Your task to perform on an android device: Clear all items from cart on newegg.com. Add "amazon basics triple a" to the cart on newegg.com, then select checkout. Image 0: 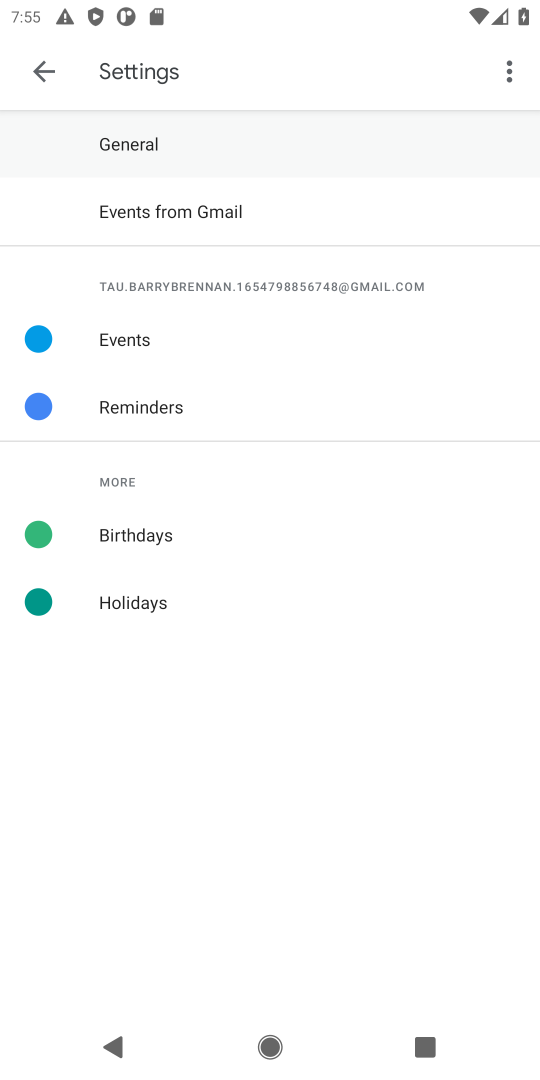
Step 0: press home button
Your task to perform on an android device: Clear all items from cart on newegg.com. Add "amazon basics triple a" to the cart on newegg.com, then select checkout. Image 1: 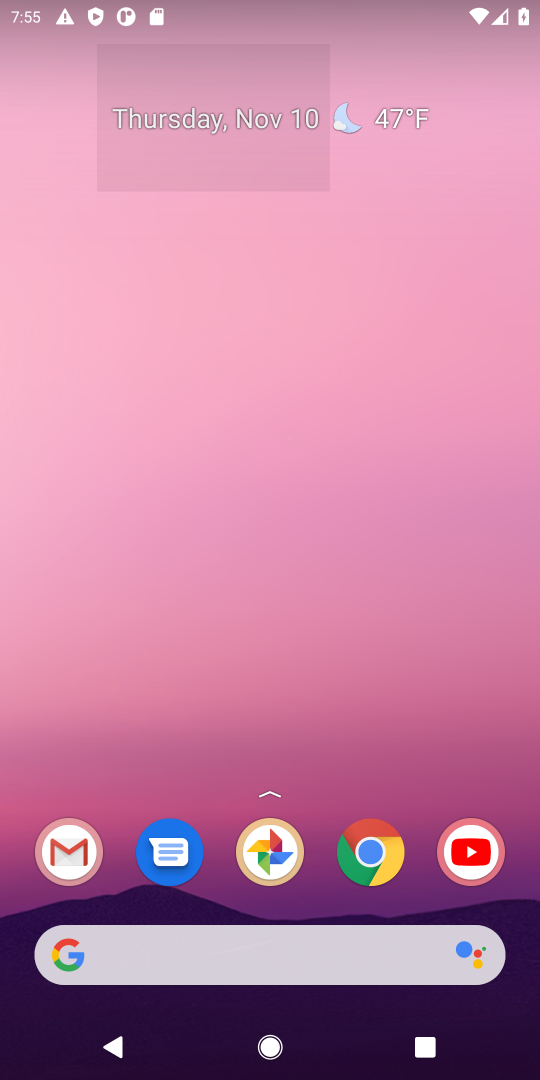
Step 1: click (375, 851)
Your task to perform on an android device: Clear all items from cart on newegg.com. Add "amazon basics triple a" to the cart on newegg.com, then select checkout. Image 2: 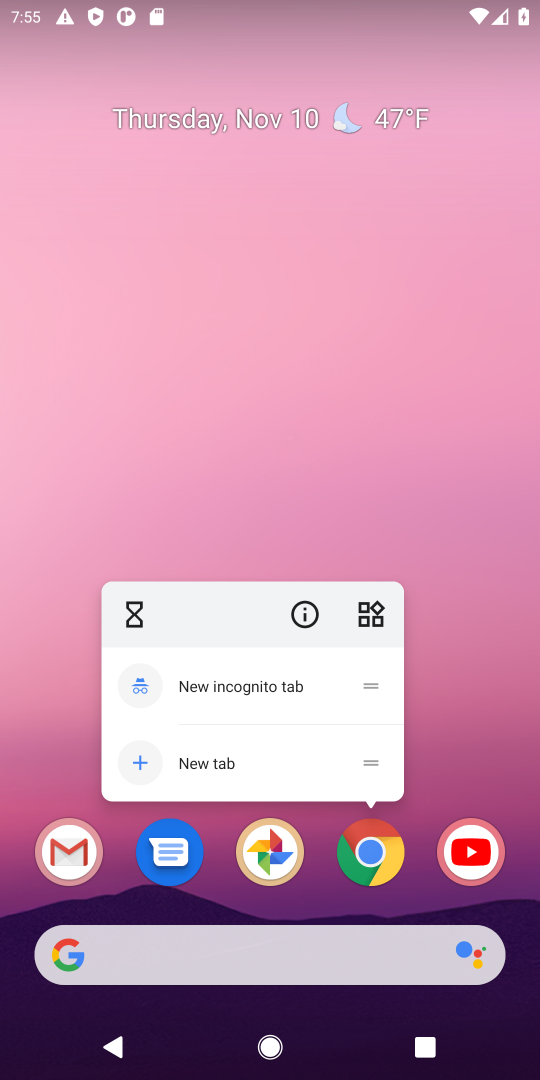
Step 2: click (375, 853)
Your task to perform on an android device: Clear all items from cart on newegg.com. Add "amazon basics triple a" to the cart on newegg.com, then select checkout. Image 3: 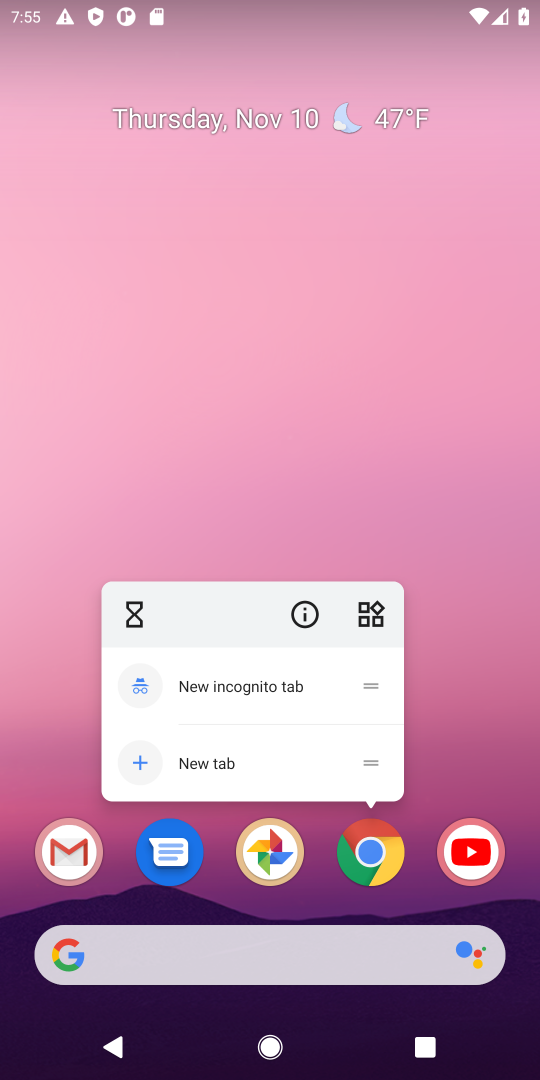
Step 3: click (364, 854)
Your task to perform on an android device: Clear all items from cart on newegg.com. Add "amazon basics triple a" to the cart on newegg.com, then select checkout. Image 4: 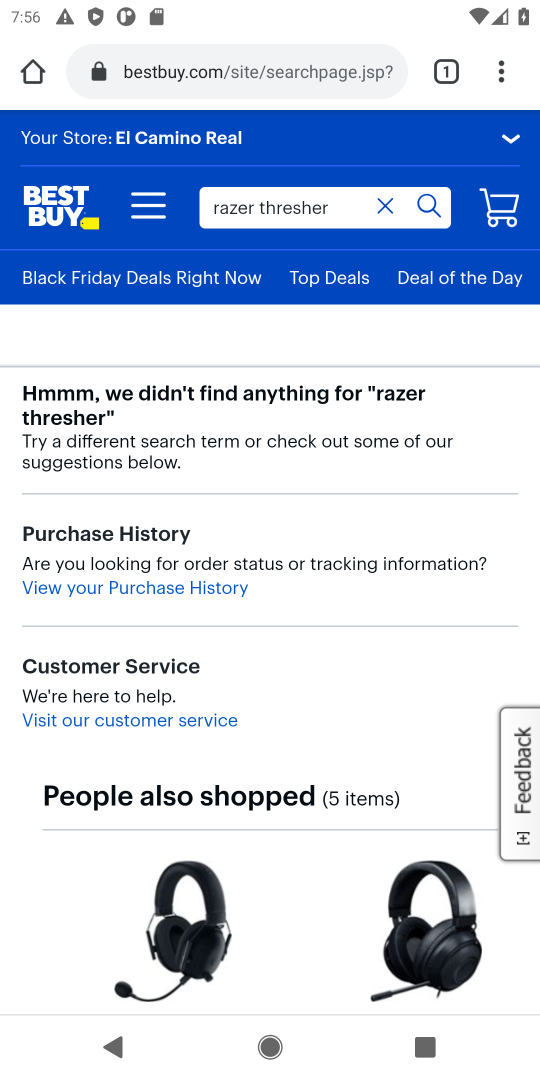
Step 4: click (325, 72)
Your task to perform on an android device: Clear all items from cart on newegg.com. Add "amazon basics triple a" to the cart on newegg.com, then select checkout. Image 5: 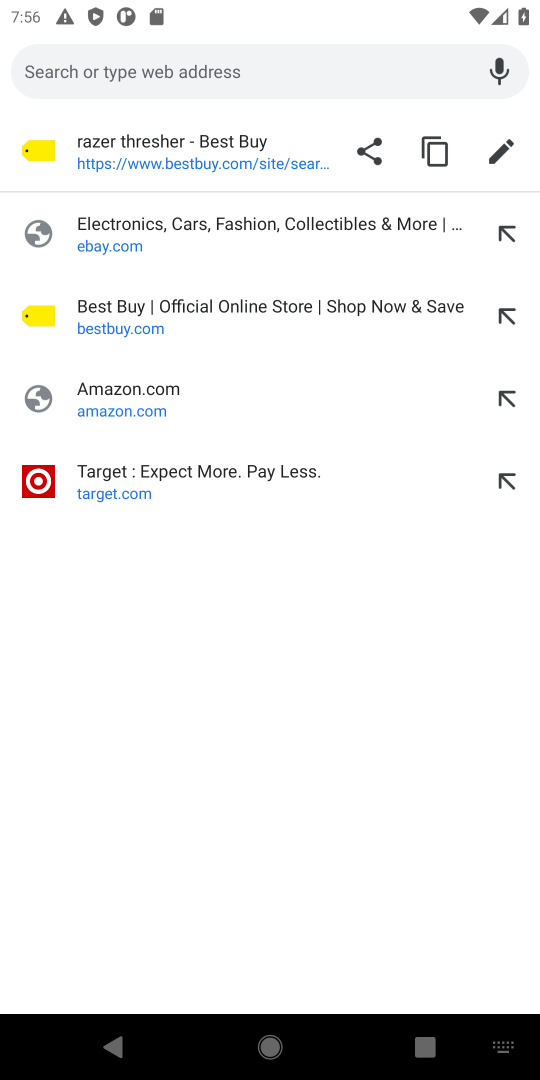
Step 5: type " newegg.com"
Your task to perform on an android device: Clear all items from cart on newegg.com. Add "amazon basics triple a" to the cart on newegg.com, then select checkout. Image 6: 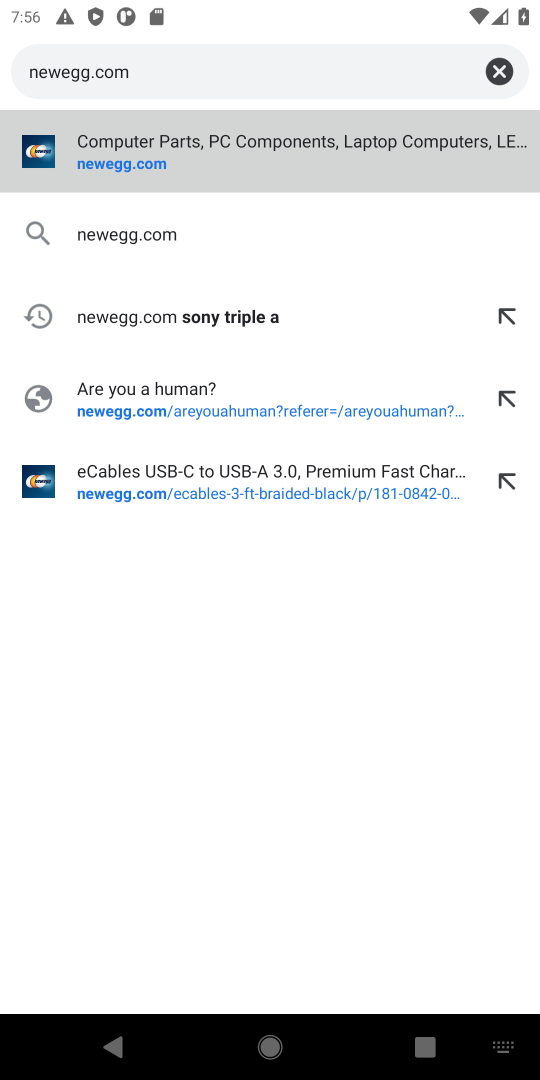
Step 6: press enter
Your task to perform on an android device: Clear all items from cart on newegg.com. Add "amazon basics triple a" to the cart on newegg.com, then select checkout. Image 7: 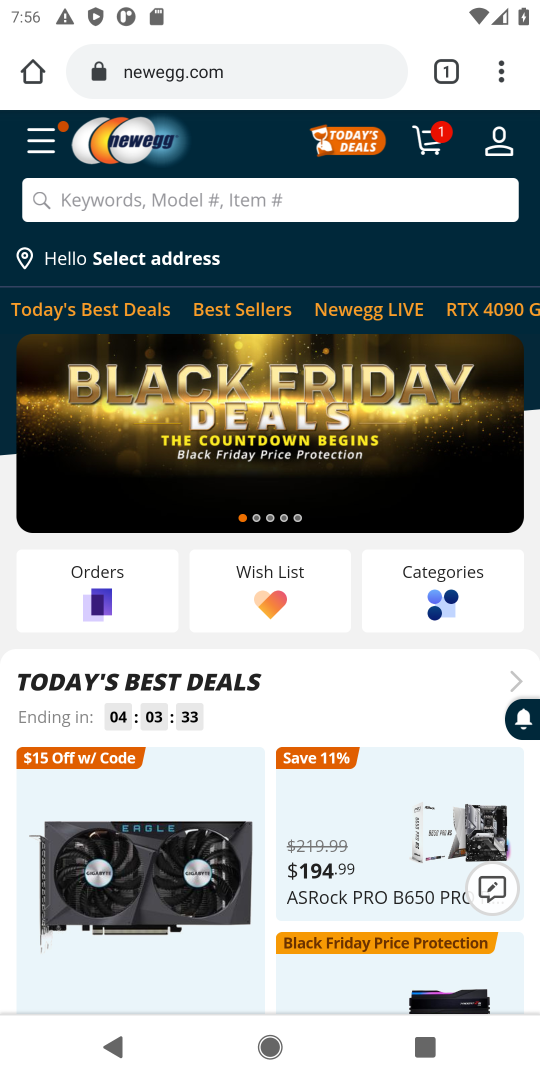
Step 7: click (132, 199)
Your task to perform on an android device: Clear all items from cart on newegg.com. Add "amazon basics triple a" to the cart on newegg.com, then select checkout. Image 8: 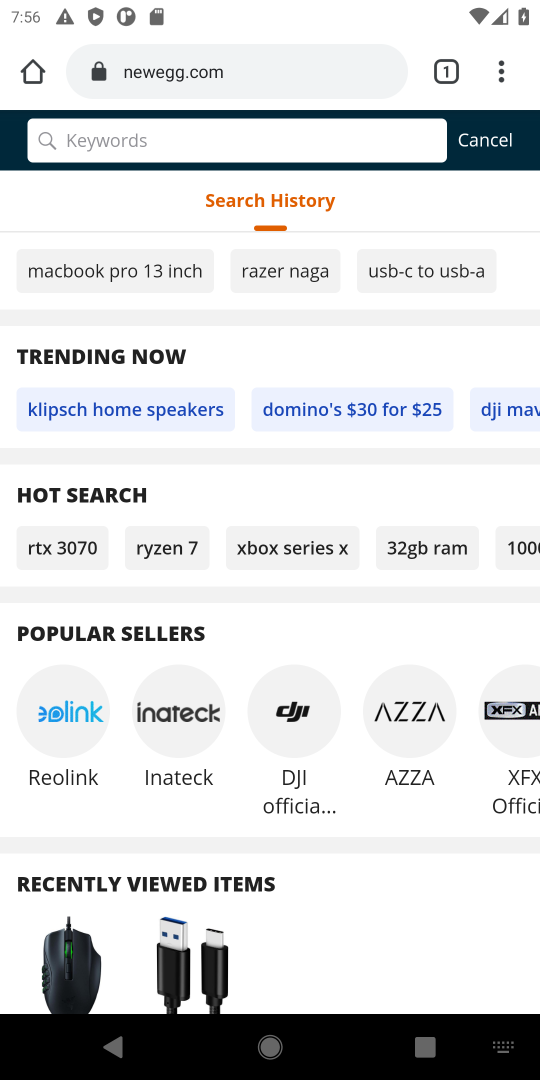
Step 8: type "amazon basics triple a"
Your task to perform on an android device: Clear all items from cart on newegg.com. Add "amazon basics triple a" to the cart on newegg.com, then select checkout. Image 9: 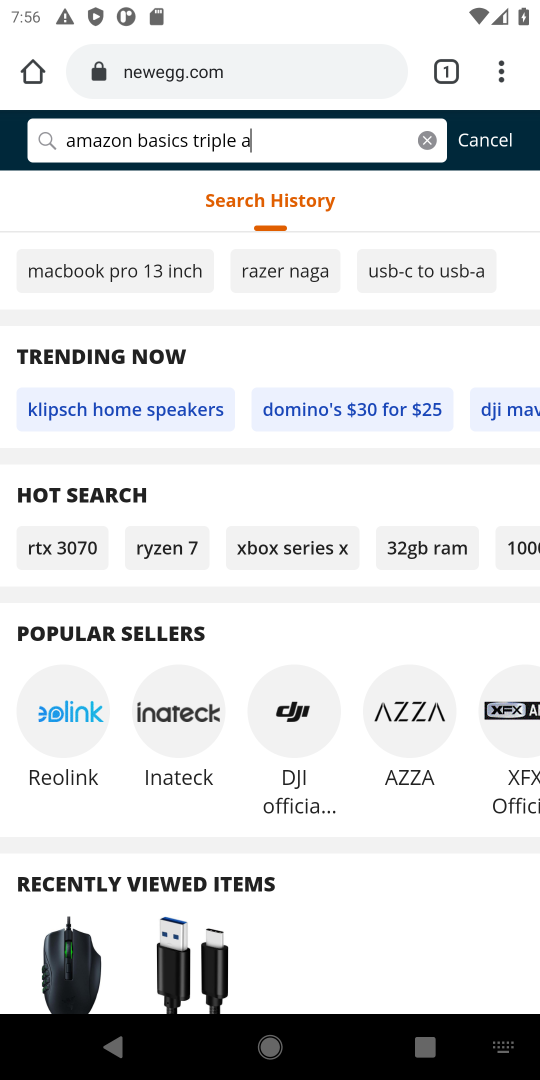
Step 9: press enter
Your task to perform on an android device: Clear all items from cart on newegg.com. Add "amazon basics triple a" to the cart on newegg.com, then select checkout. Image 10: 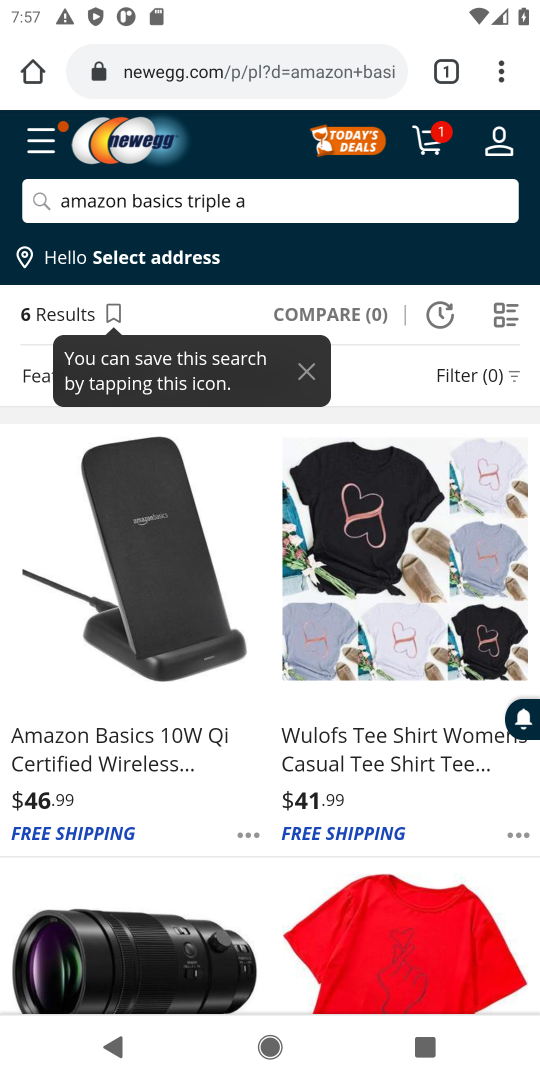
Step 10: task complete